Your task to perform on an android device: toggle wifi Image 0: 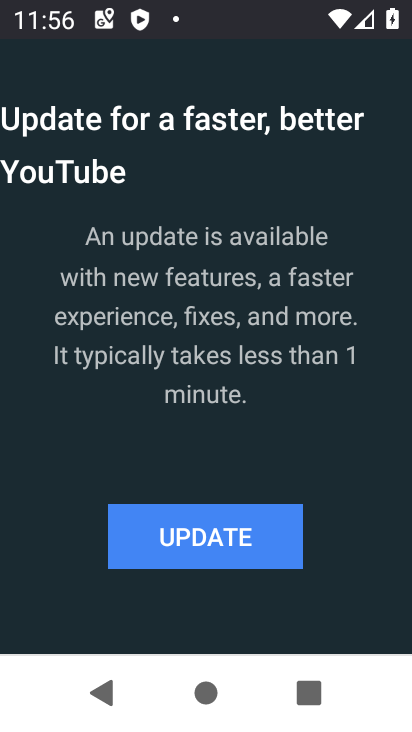
Step 0: press home button
Your task to perform on an android device: toggle wifi Image 1: 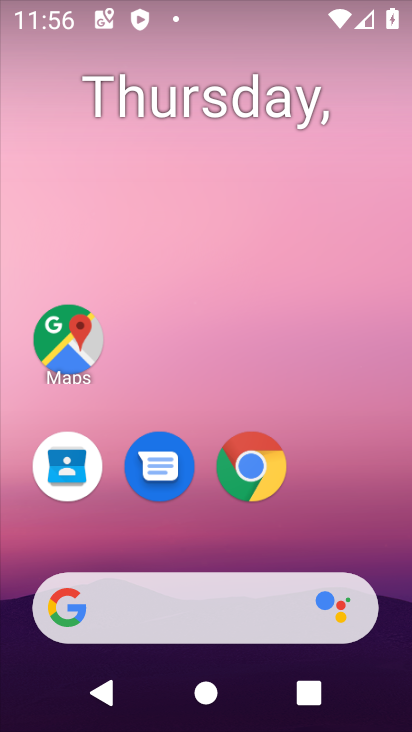
Step 1: drag from (269, 538) to (201, 19)
Your task to perform on an android device: toggle wifi Image 2: 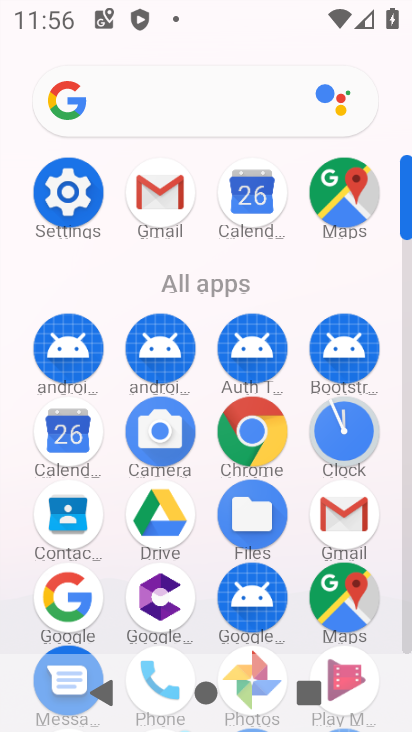
Step 2: click (50, 186)
Your task to perform on an android device: toggle wifi Image 3: 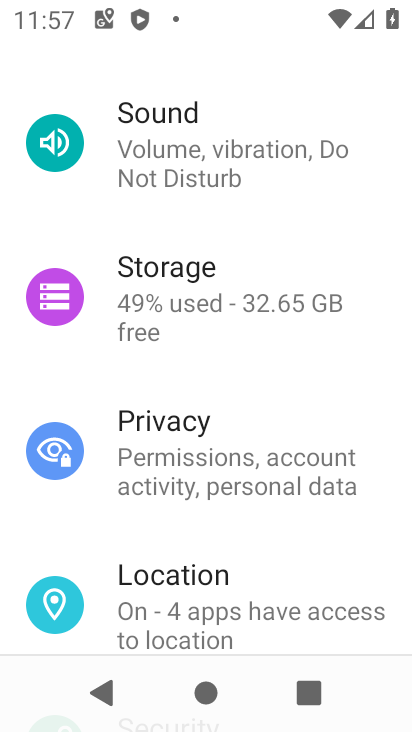
Step 3: drag from (209, 372) to (211, 683)
Your task to perform on an android device: toggle wifi Image 4: 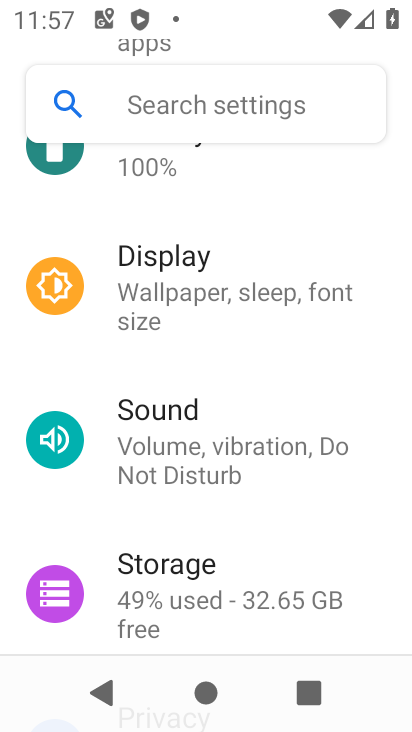
Step 4: drag from (209, 262) to (218, 587)
Your task to perform on an android device: toggle wifi Image 5: 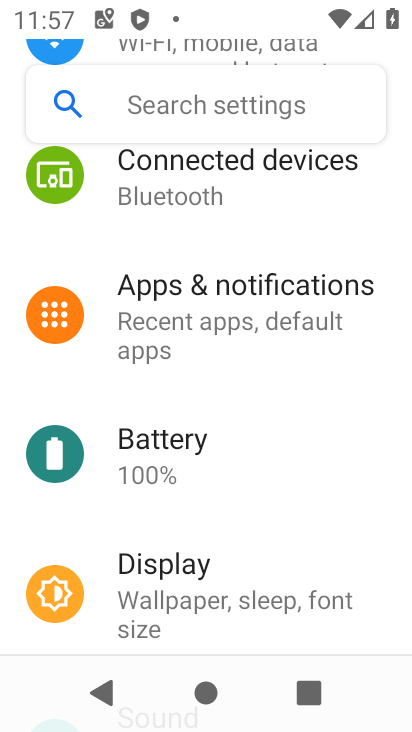
Step 5: drag from (235, 284) to (237, 551)
Your task to perform on an android device: toggle wifi Image 6: 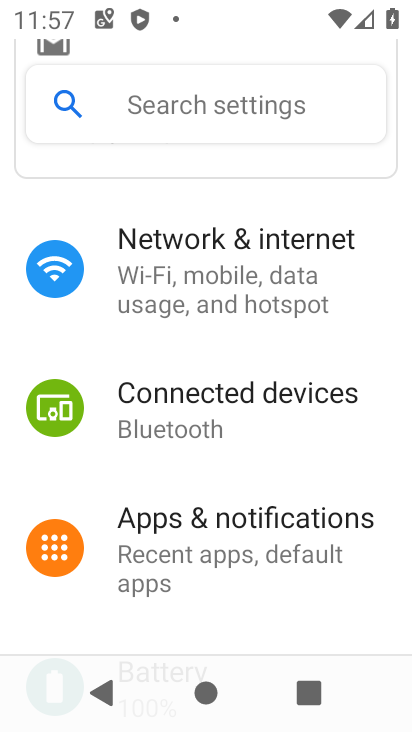
Step 6: drag from (203, 351) to (183, 658)
Your task to perform on an android device: toggle wifi Image 7: 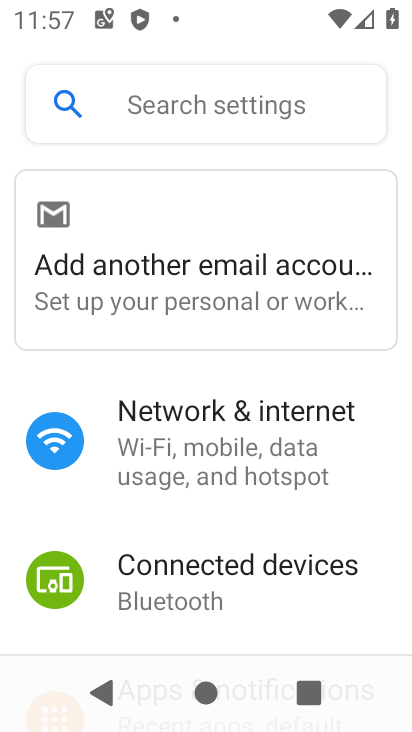
Step 7: click (201, 435)
Your task to perform on an android device: toggle wifi Image 8: 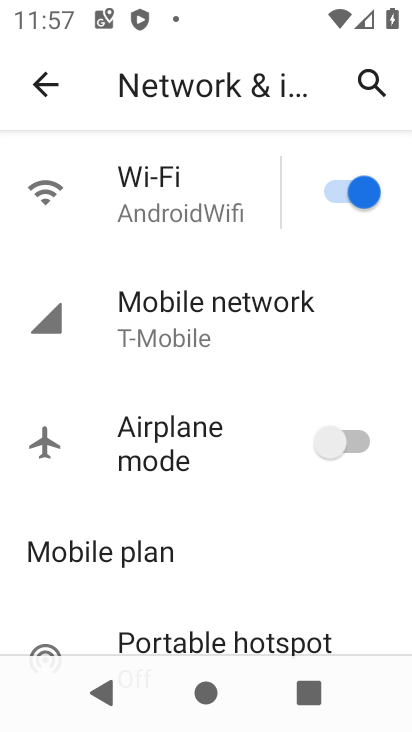
Step 8: click (317, 194)
Your task to perform on an android device: toggle wifi Image 9: 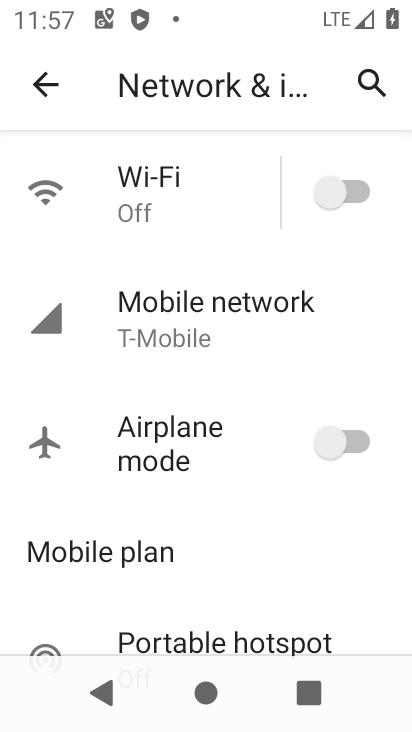
Step 9: task complete